Your task to perform on an android device: allow cookies in the chrome app Image 0: 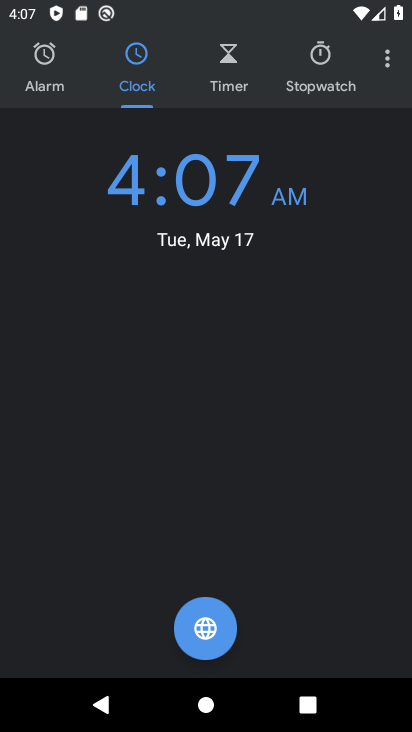
Step 0: press home button
Your task to perform on an android device: allow cookies in the chrome app Image 1: 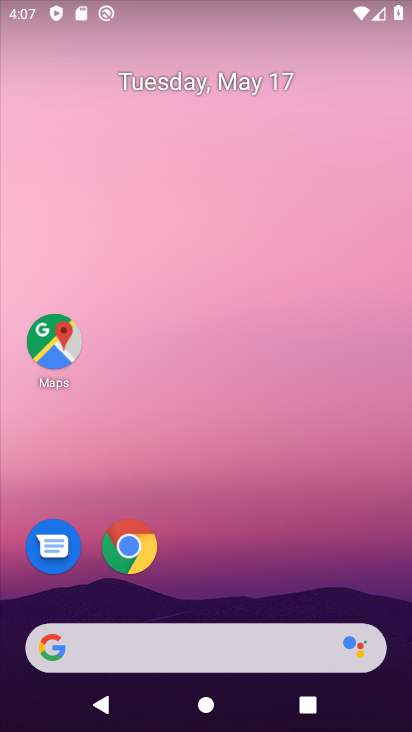
Step 1: click (128, 551)
Your task to perform on an android device: allow cookies in the chrome app Image 2: 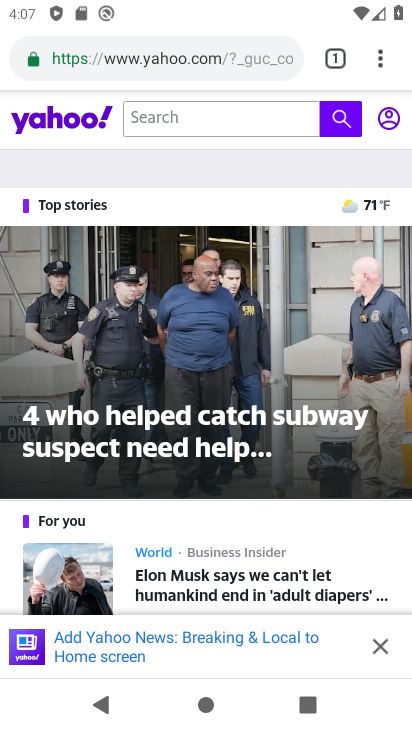
Step 2: drag from (379, 72) to (199, 578)
Your task to perform on an android device: allow cookies in the chrome app Image 3: 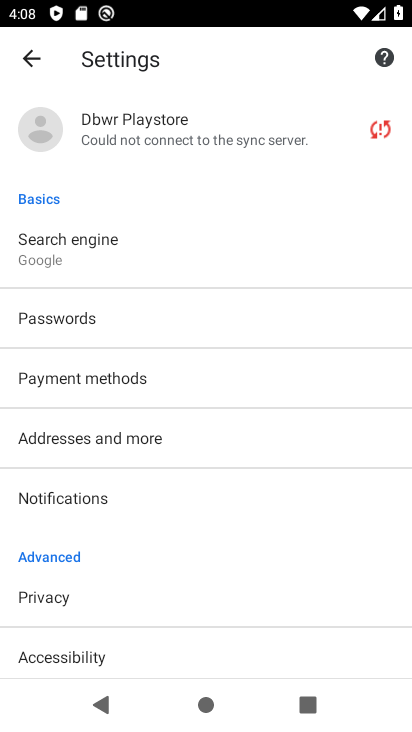
Step 3: drag from (97, 633) to (139, 333)
Your task to perform on an android device: allow cookies in the chrome app Image 4: 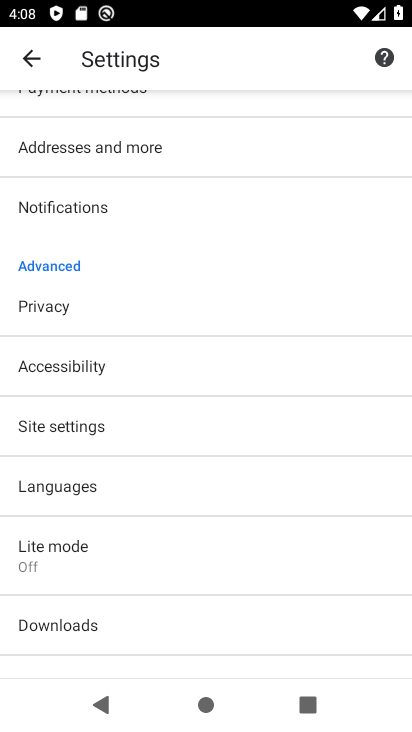
Step 4: click (94, 438)
Your task to perform on an android device: allow cookies in the chrome app Image 5: 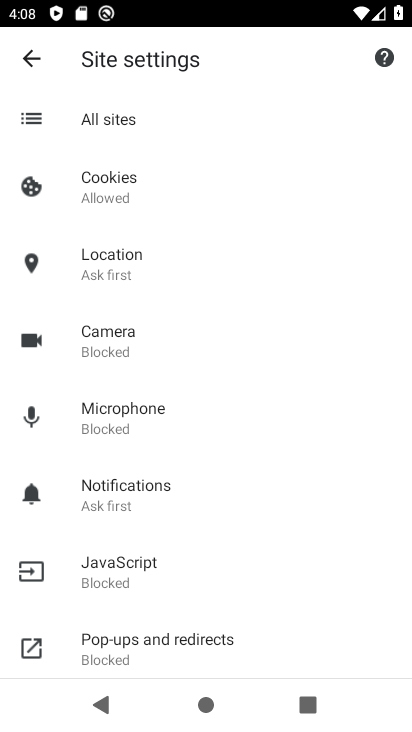
Step 5: click (154, 186)
Your task to perform on an android device: allow cookies in the chrome app Image 6: 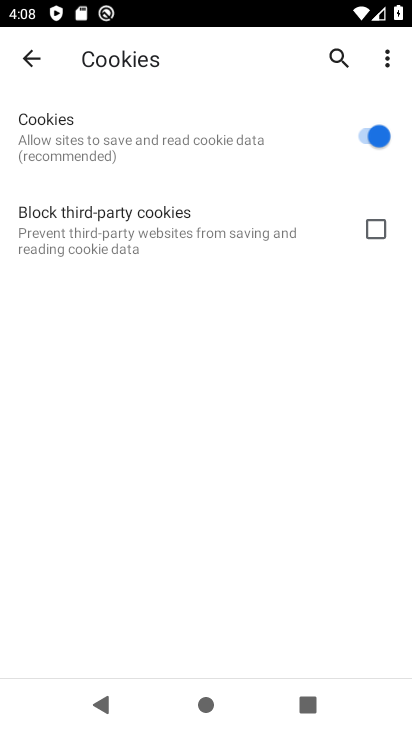
Step 6: task complete